Your task to perform on an android device: toggle pop-ups in chrome Image 0: 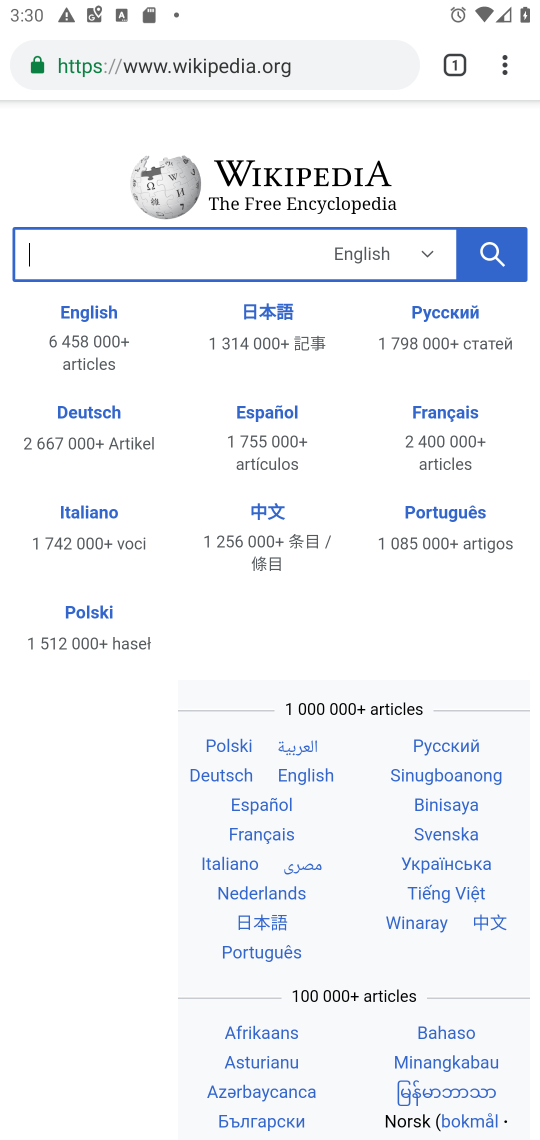
Step 0: press home button
Your task to perform on an android device: toggle pop-ups in chrome Image 1: 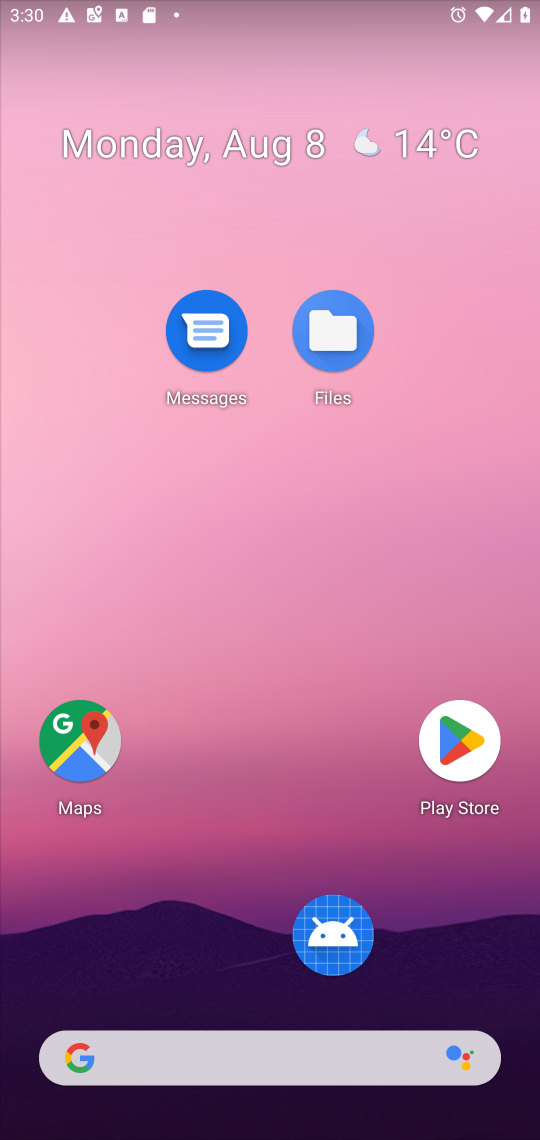
Step 1: click (260, 1047)
Your task to perform on an android device: toggle pop-ups in chrome Image 2: 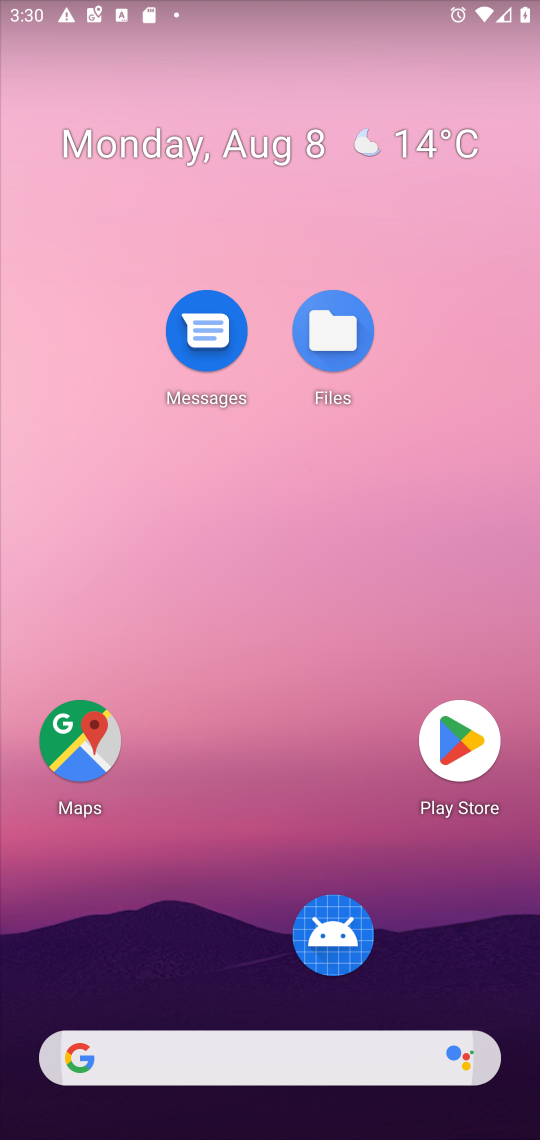
Step 2: drag from (260, 1047) to (295, 72)
Your task to perform on an android device: toggle pop-ups in chrome Image 3: 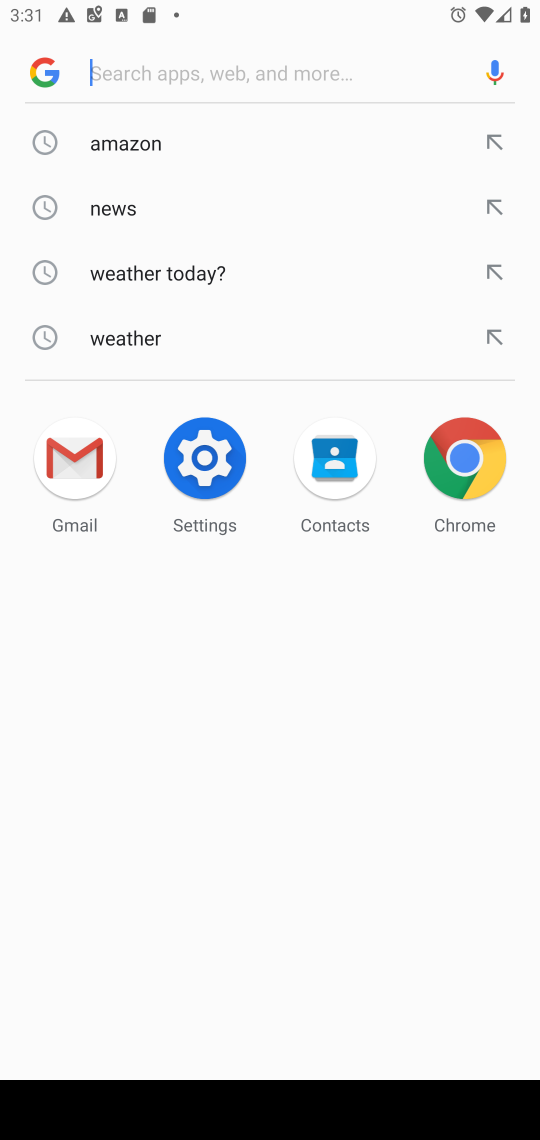
Step 3: click (481, 468)
Your task to perform on an android device: toggle pop-ups in chrome Image 4: 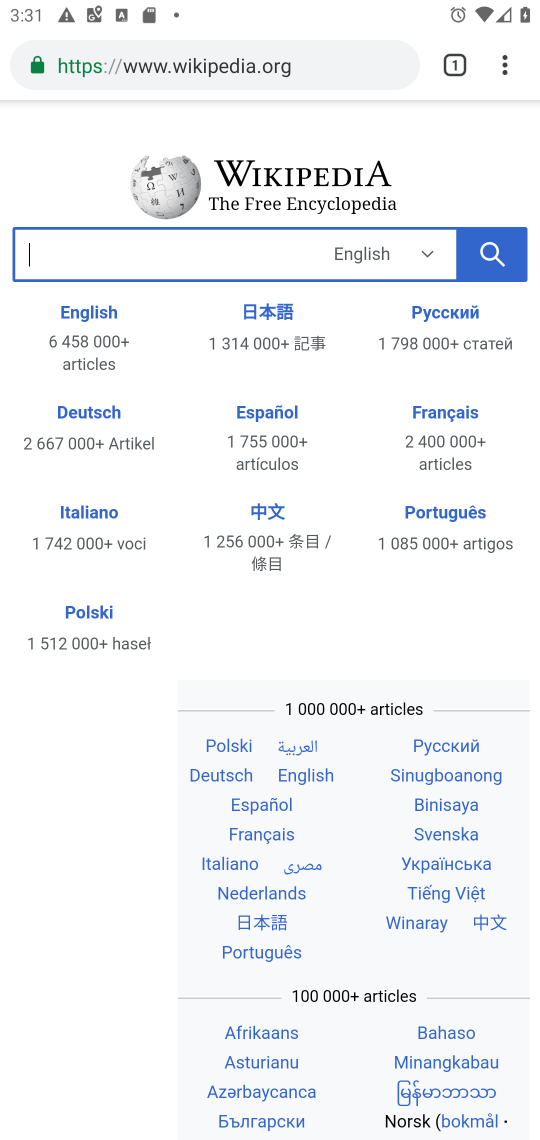
Step 4: click (501, 55)
Your task to perform on an android device: toggle pop-ups in chrome Image 5: 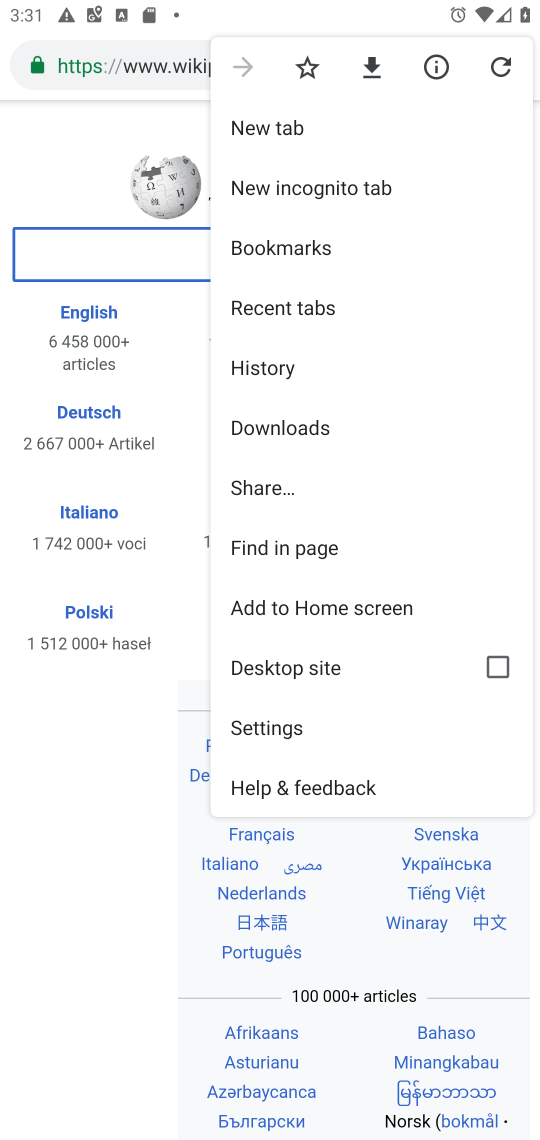
Step 5: click (305, 735)
Your task to perform on an android device: toggle pop-ups in chrome Image 6: 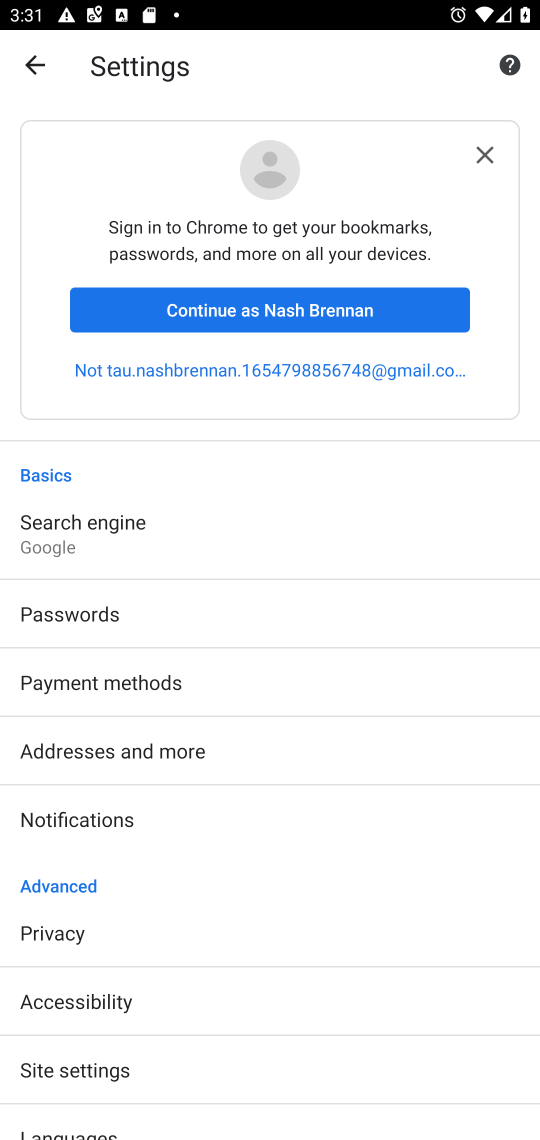
Step 6: click (157, 1059)
Your task to perform on an android device: toggle pop-ups in chrome Image 7: 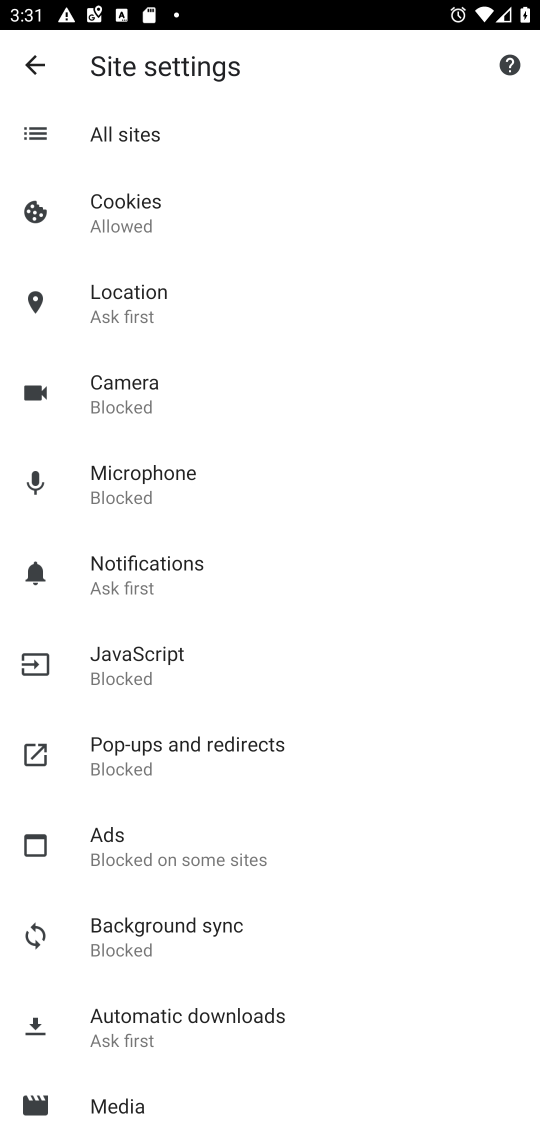
Step 7: click (213, 755)
Your task to perform on an android device: toggle pop-ups in chrome Image 8: 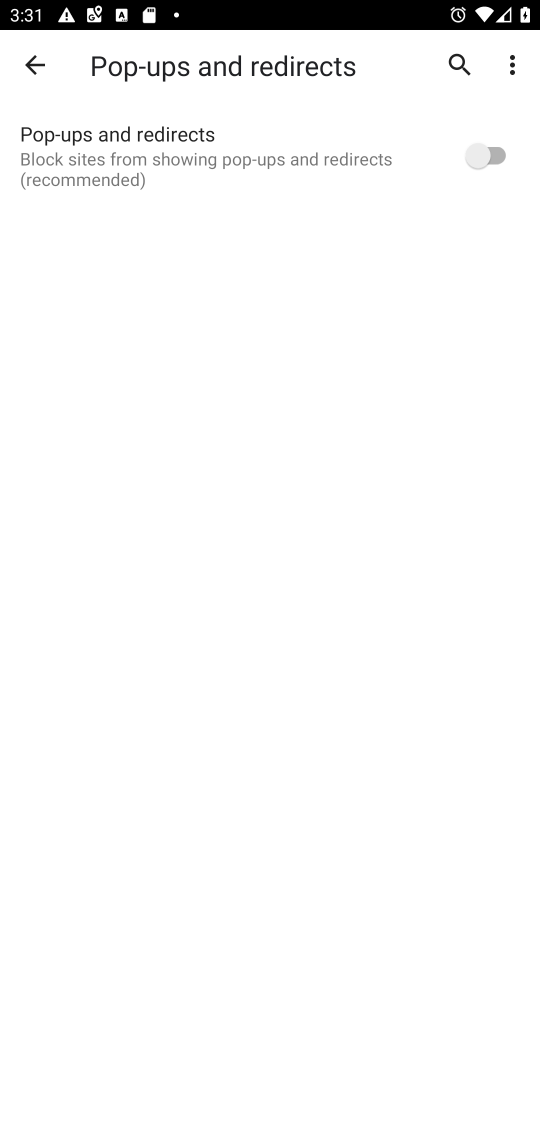
Step 8: click (500, 155)
Your task to perform on an android device: toggle pop-ups in chrome Image 9: 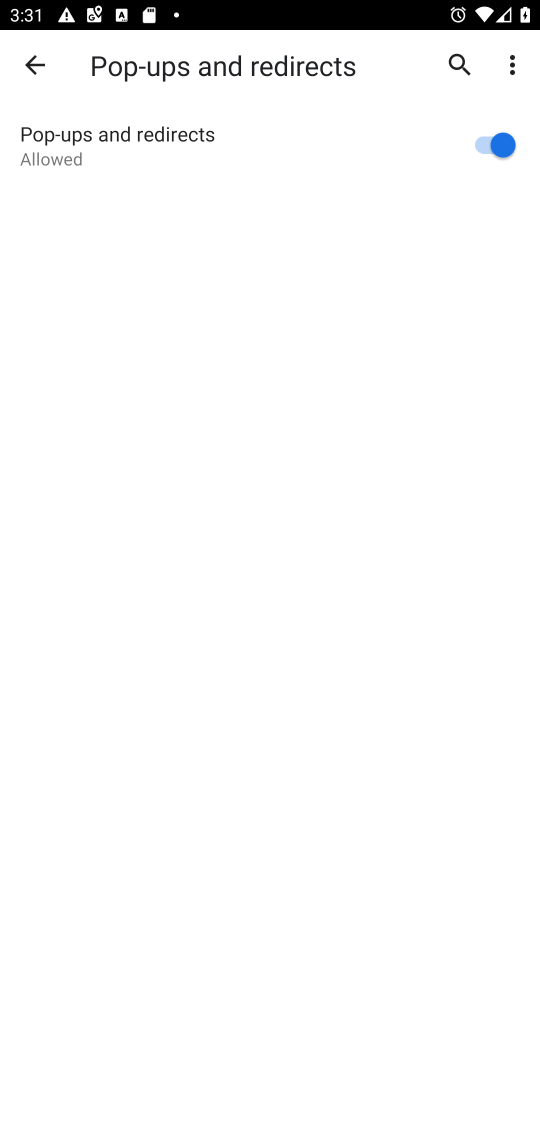
Step 9: task complete